Your task to perform on an android device: Open my contact list Image 0: 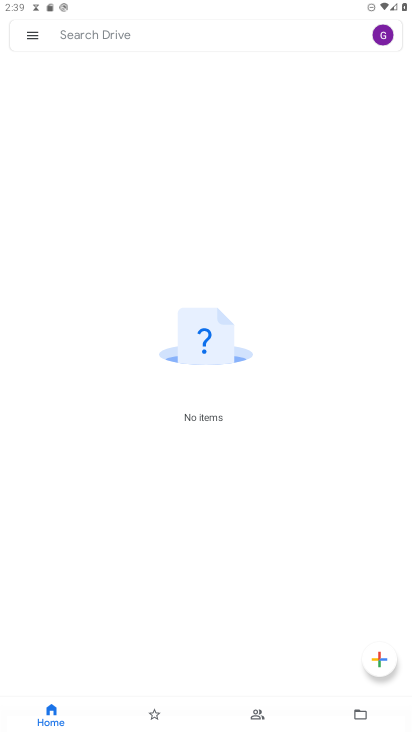
Step 0: press home button
Your task to perform on an android device: Open my contact list Image 1: 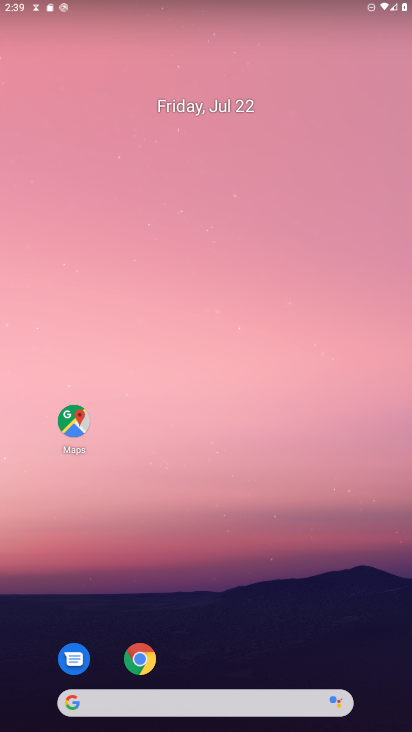
Step 1: drag from (244, 306) to (217, 110)
Your task to perform on an android device: Open my contact list Image 2: 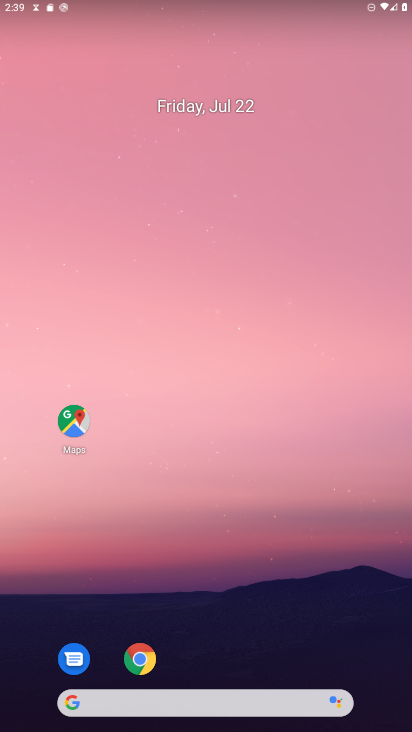
Step 2: drag from (258, 637) to (171, 2)
Your task to perform on an android device: Open my contact list Image 3: 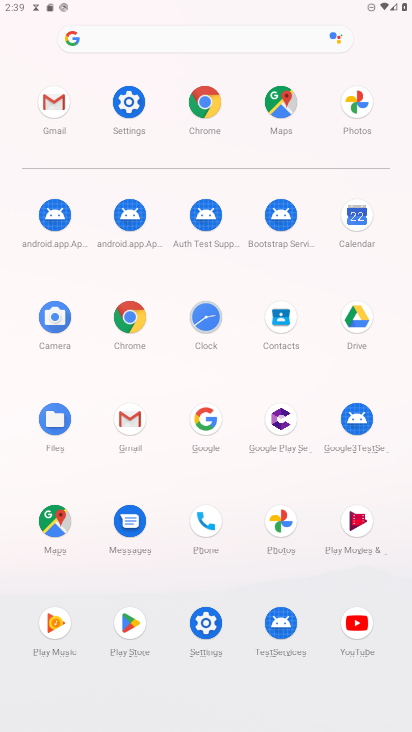
Step 3: click (208, 538)
Your task to perform on an android device: Open my contact list Image 4: 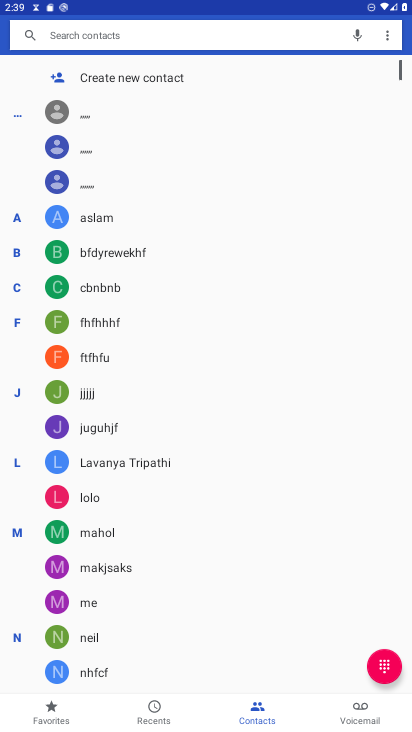
Step 4: click (356, 8)
Your task to perform on an android device: Open my contact list Image 5: 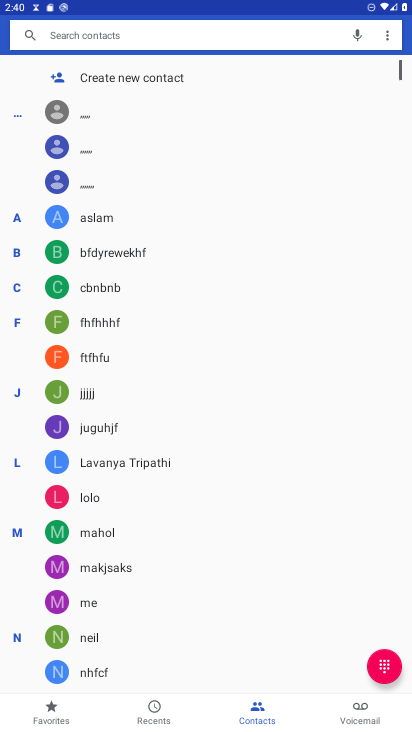
Step 5: task complete